Your task to perform on an android device: turn off wifi Image 0: 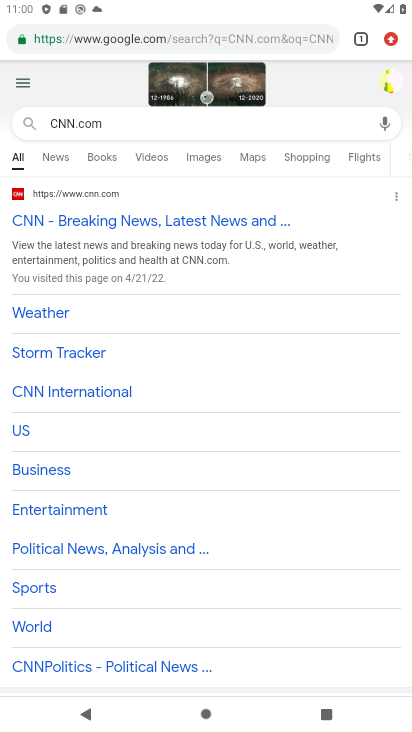
Step 0: press home button
Your task to perform on an android device: turn off wifi Image 1: 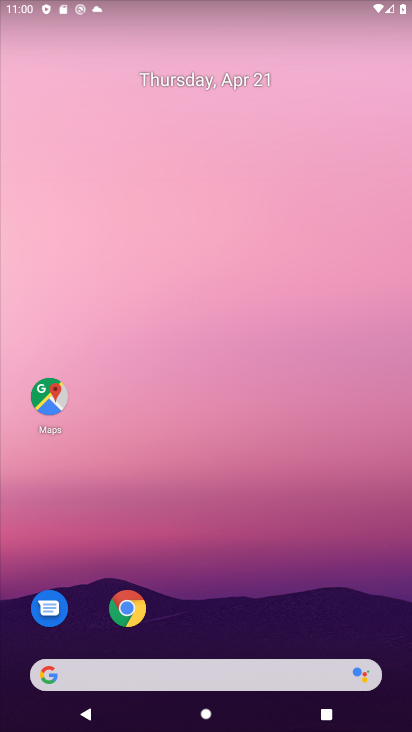
Step 1: drag from (214, 527) to (267, 54)
Your task to perform on an android device: turn off wifi Image 2: 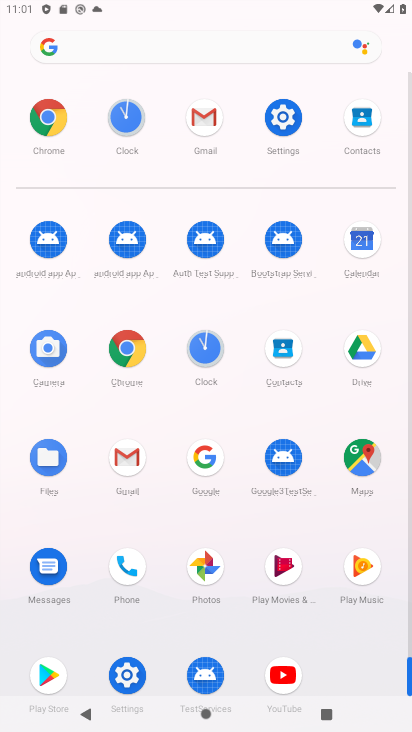
Step 2: click (283, 116)
Your task to perform on an android device: turn off wifi Image 3: 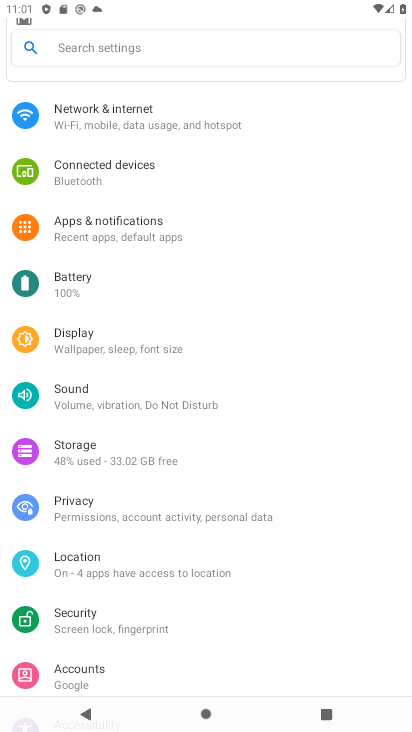
Step 3: click (201, 121)
Your task to perform on an android device: turn off wifi Image 4: 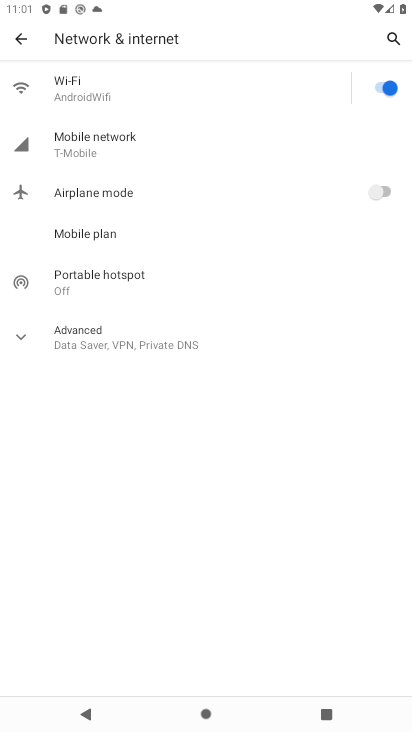
Step 4: click (390, 89)
Your task to perform on an android device: turn off wifi Image 5: 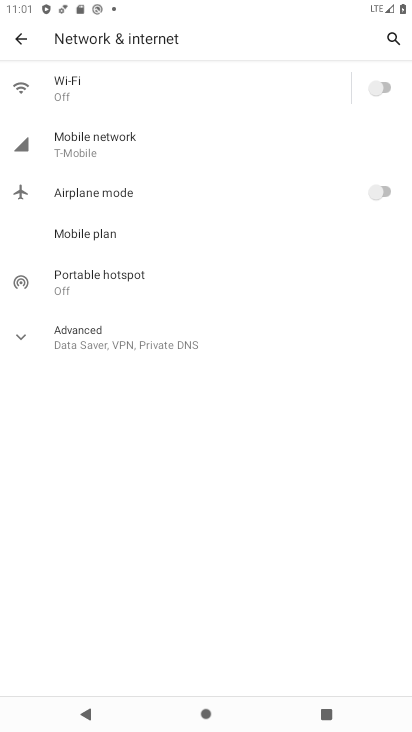
Step 5: task complete